Your task to perform on an android device: turn off location history Image 0: 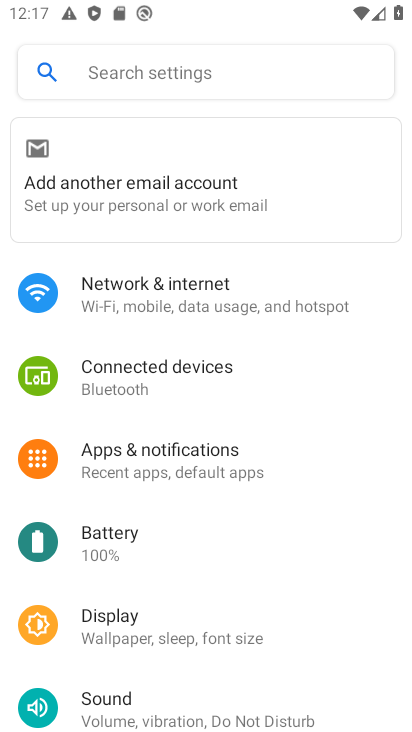
Step 0: press home button
Your task to perform on an android device: turn off location history Image 1: 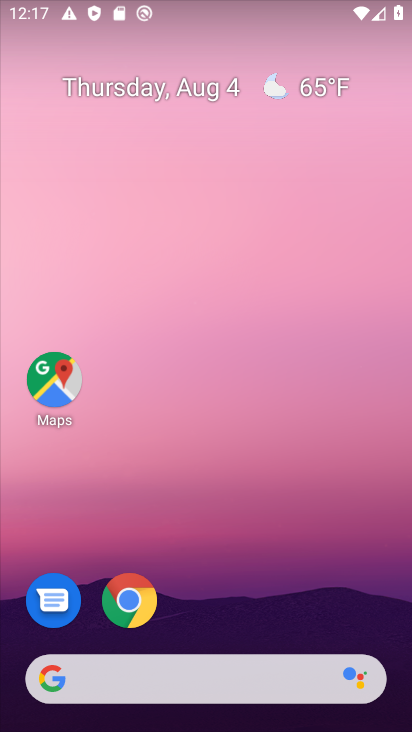
Step 1: drag from (231, 627) to (180, 228)
Your task to perform on an android device: turn off location history Image 2: 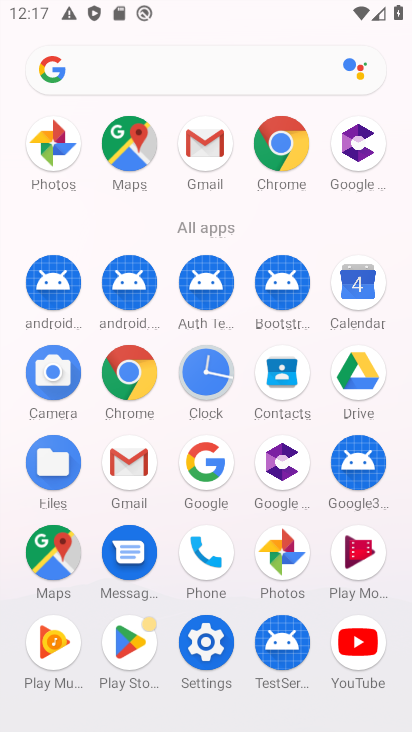
Step 2: click (207, 631)
Your task to perform on an android device: turn off location history Image 3: 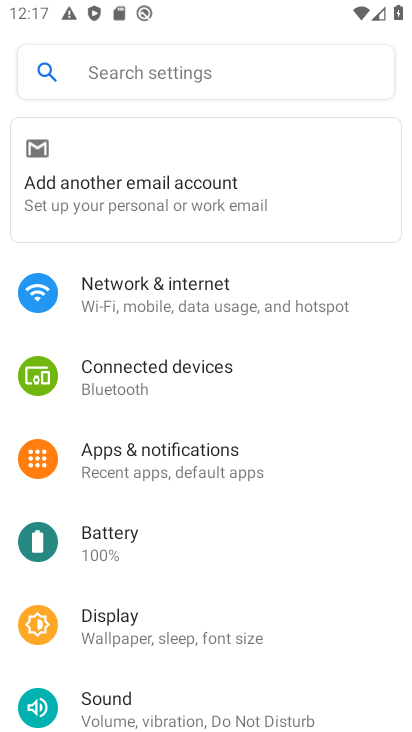
Step 3: drag from (207, 631) to (153, 72)
Your task to perform on an android device: turn off location history Image 4: 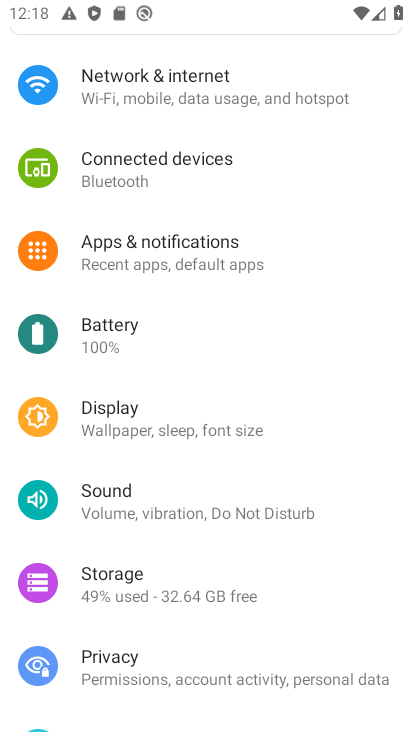
Step 4: drag from (212, 567) to (157, 33)
Your task to perform on an android device: turn off location history Image 5: 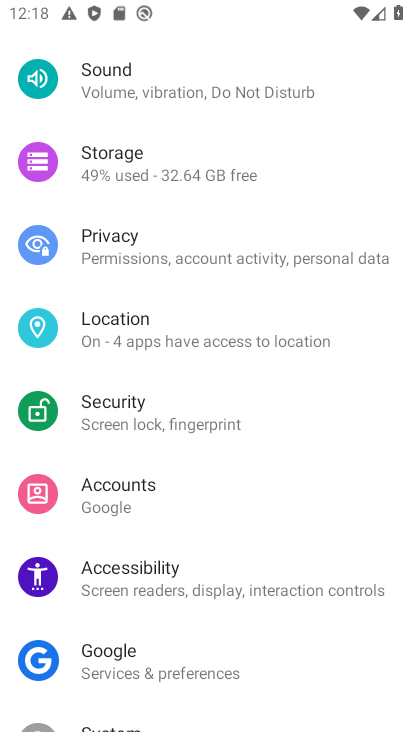
Step 5: click (141, 331)
Your task to perform on an android device: turn off location history Image 6: 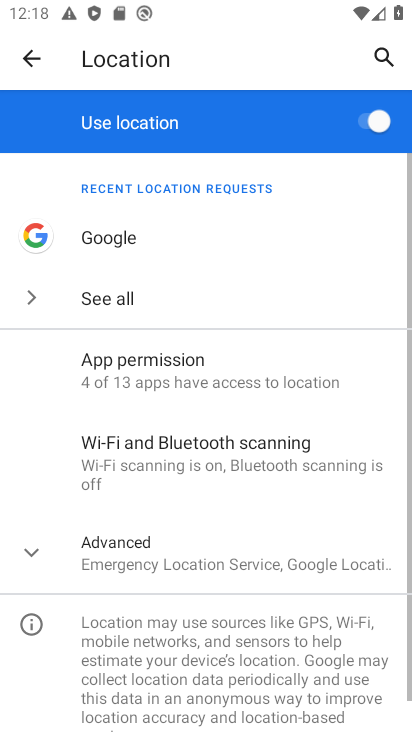
Step 6: click (193, 548)
Your task to perform on an android device: turn off location history Image 7: 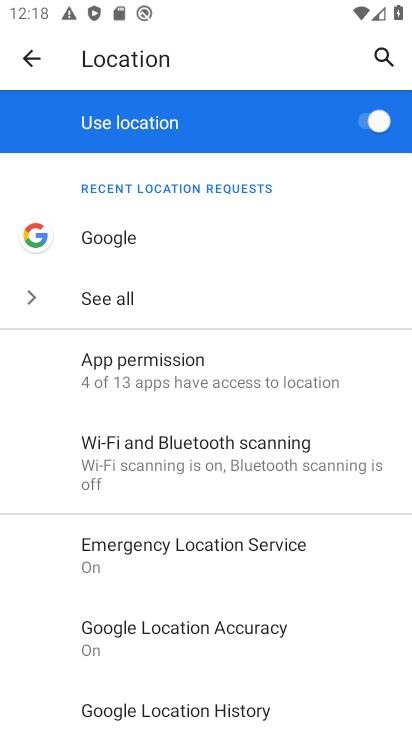
Step 7: click (154, 702)
Your task to perform on an android device: turn off location history Image 8: 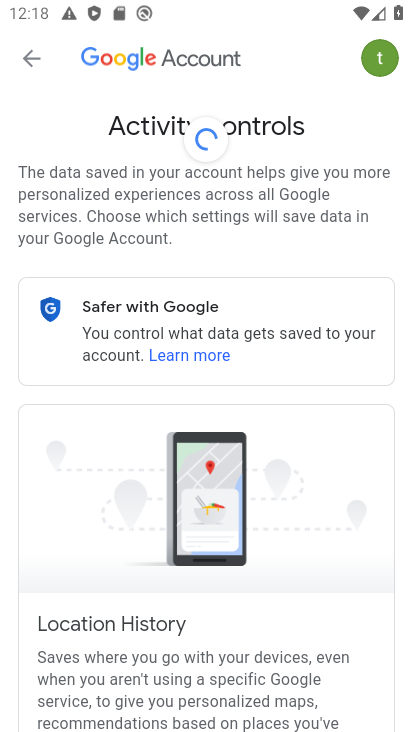
Step 8: drag from (349, 536) to (297, 68)
Your task to perform on an android device: turn off location history Image 9: 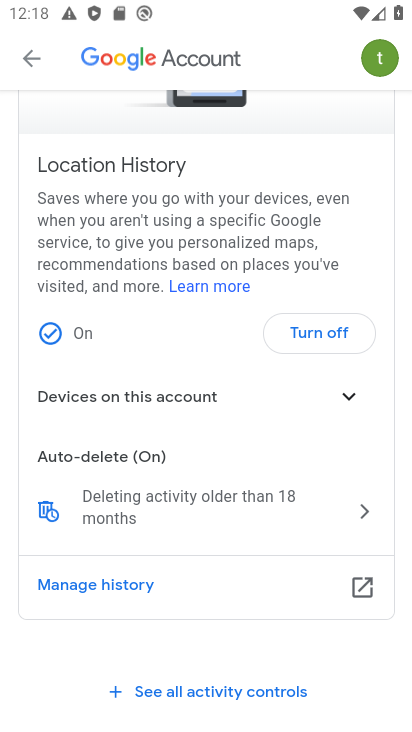
Step 9: click (348, 330)
Your task to perform on an android device: turn off location history Image 10: 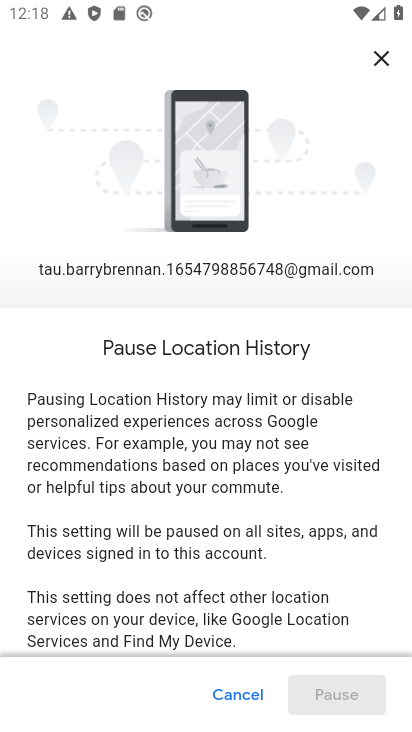
Step 10: drag from (346, 549) to (324, 198)
Your task to perform on an android device: turn off location history Image 11: 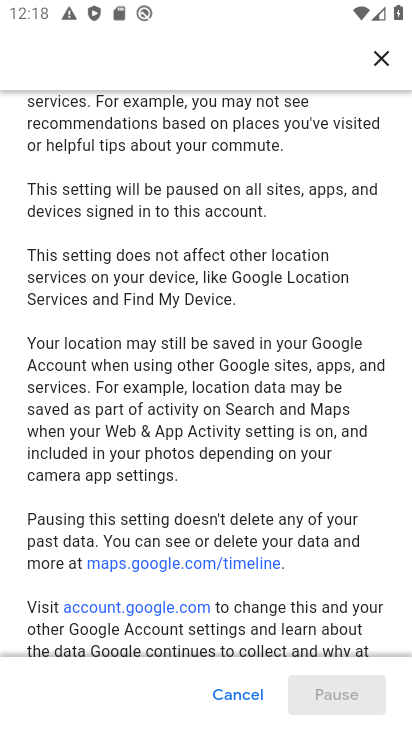
Step 11: drag from (281, 495) to (174, 69)
Your task to perform on an android device: turn off location history Image 12: 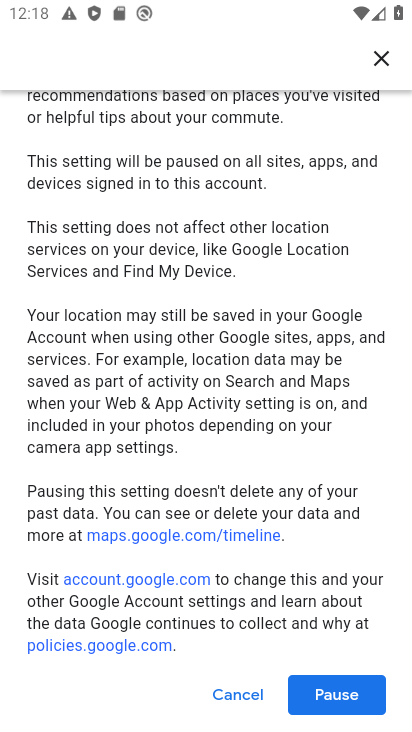
Step 12: click (324, 694)
Your task to perform on an android device: turn off location history Image 13: 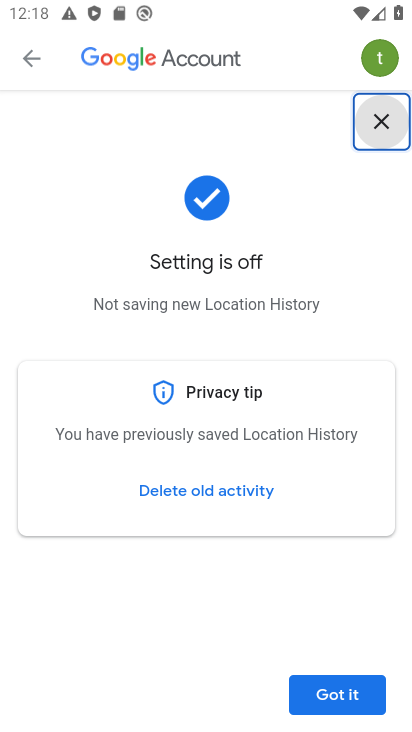
Step 13: click (369, 694)
Your task to perform on an android device: turn off location history Image 14: 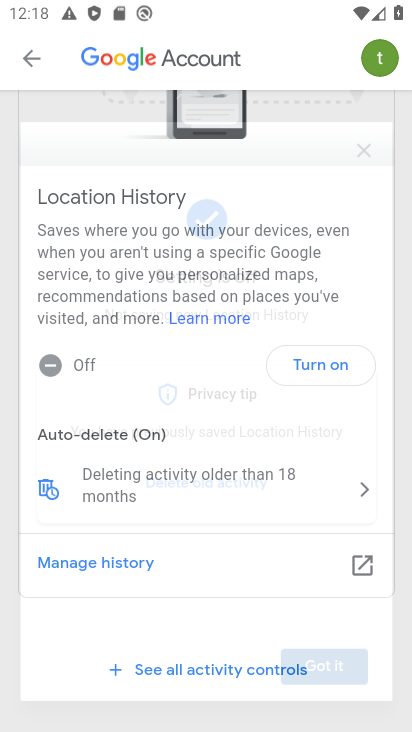
Step 14: task complete